Your task to perform on an android device: Open notification settings Image 0: 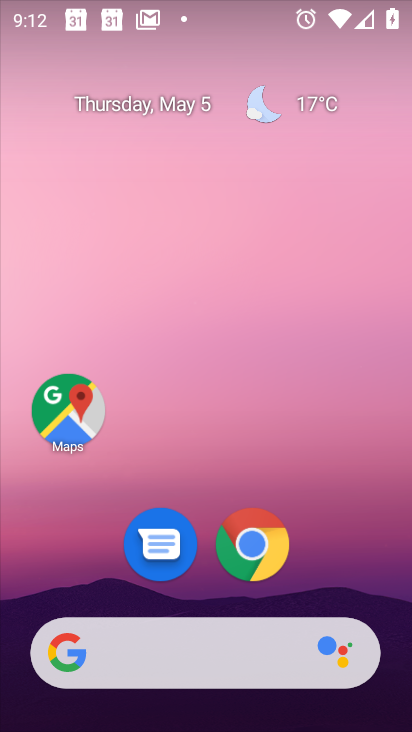
Step 0: drag from (316, 547) to (304, 134)
Your task to perform on an android device: Open notification settings Image 1: 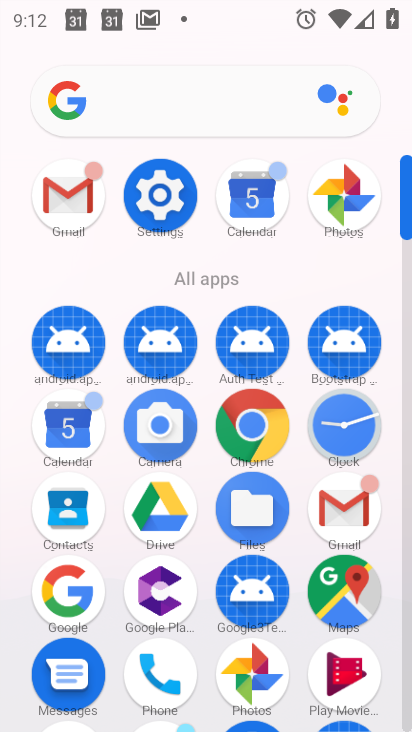
Step 1: click (179, 201)
Your task to perform on an android device: Open notification settings Image 2: 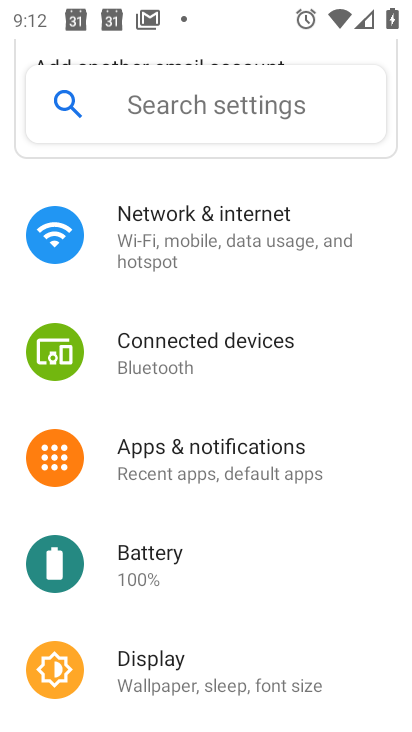
Step 2: click (209, 477)
Your task to perform on an android device: Open notification settings Image 3: 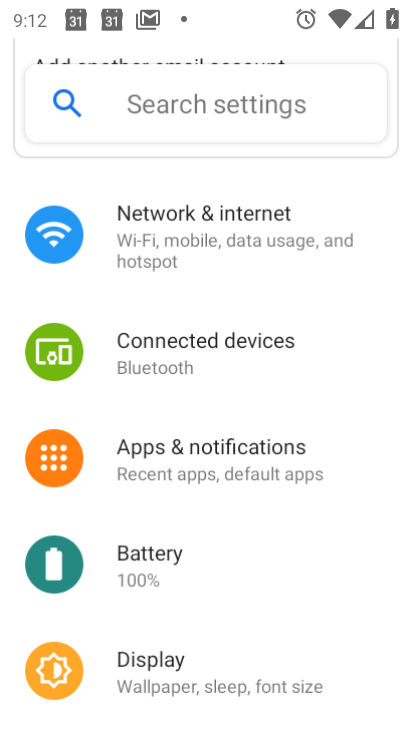
Step 3: task complete